Your task to perform on an android device: Search for hotels in Mexico city Image 0: 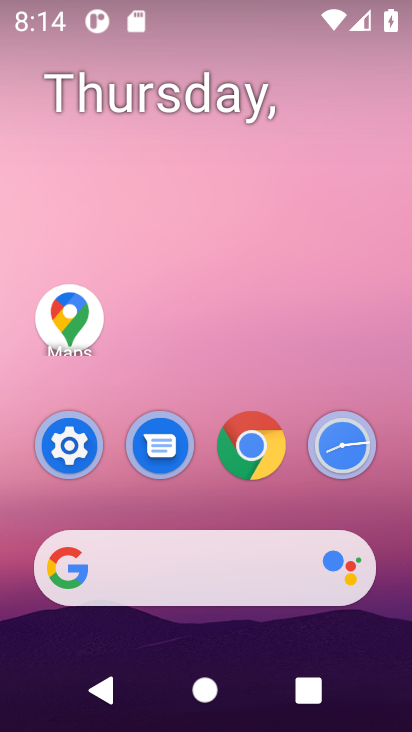
Step 0: click (253, 432)
Your task to perform on an android device: Search for hotels in Mexico city Image 1: 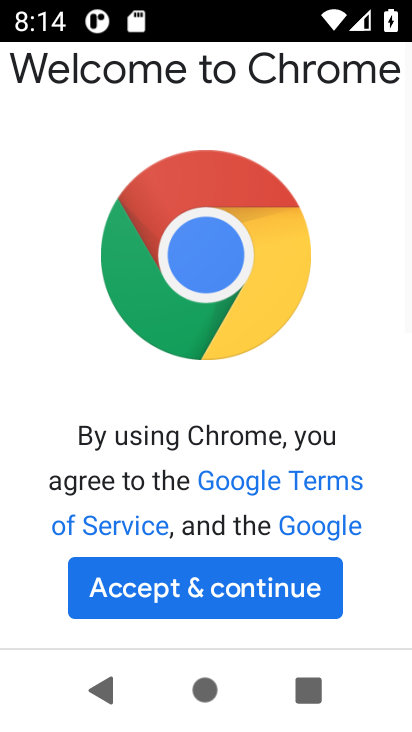
Step 1: press home button
Your task to perform on an android device: Search for hotels in Mexico city Image 2: 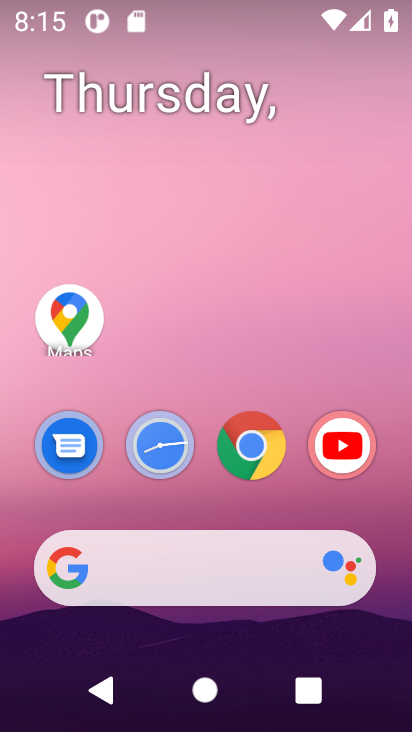
Step 2: click (180, 570)
Your task to perform on an android device: Search for hotels in Mexico city Image 3: 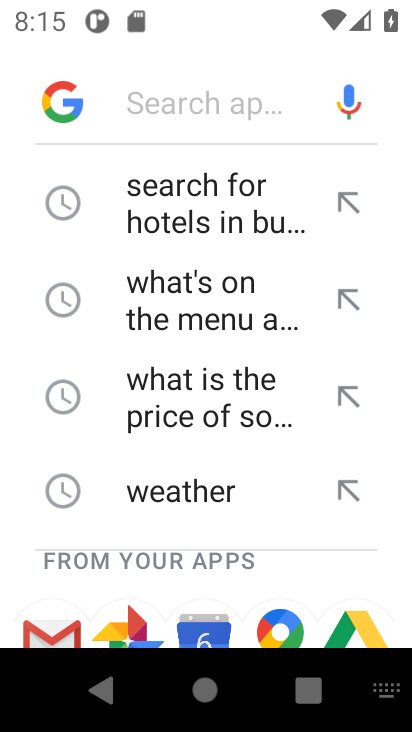
Step 3: type "Search for hotels in Mexico city"
Your task to perform on an android device: Search for hotels in Mexico city Image 4: 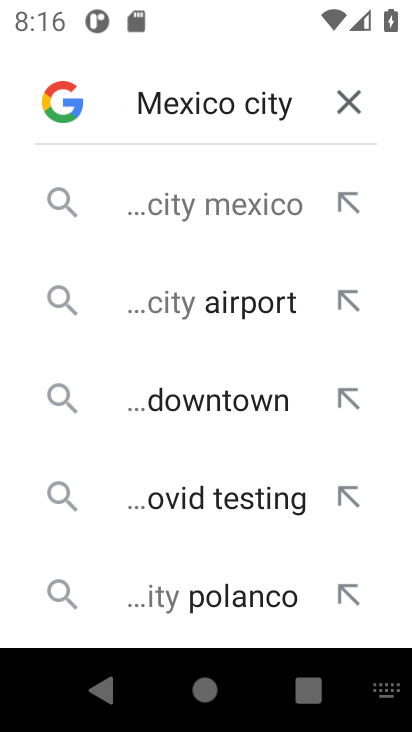
Step 4: click (250, 228)
Your task to perform on an android device: Search for hotels in Mexico city Image 5: 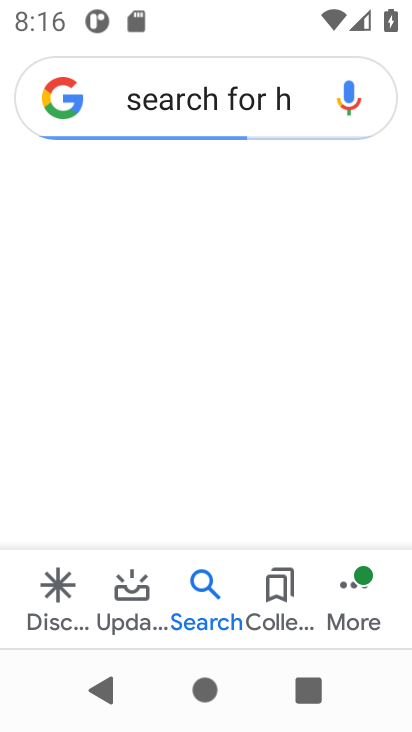
Step 5: task complete